Your task to perform on an android device: toggle show notifications on the lock screen Image 0: 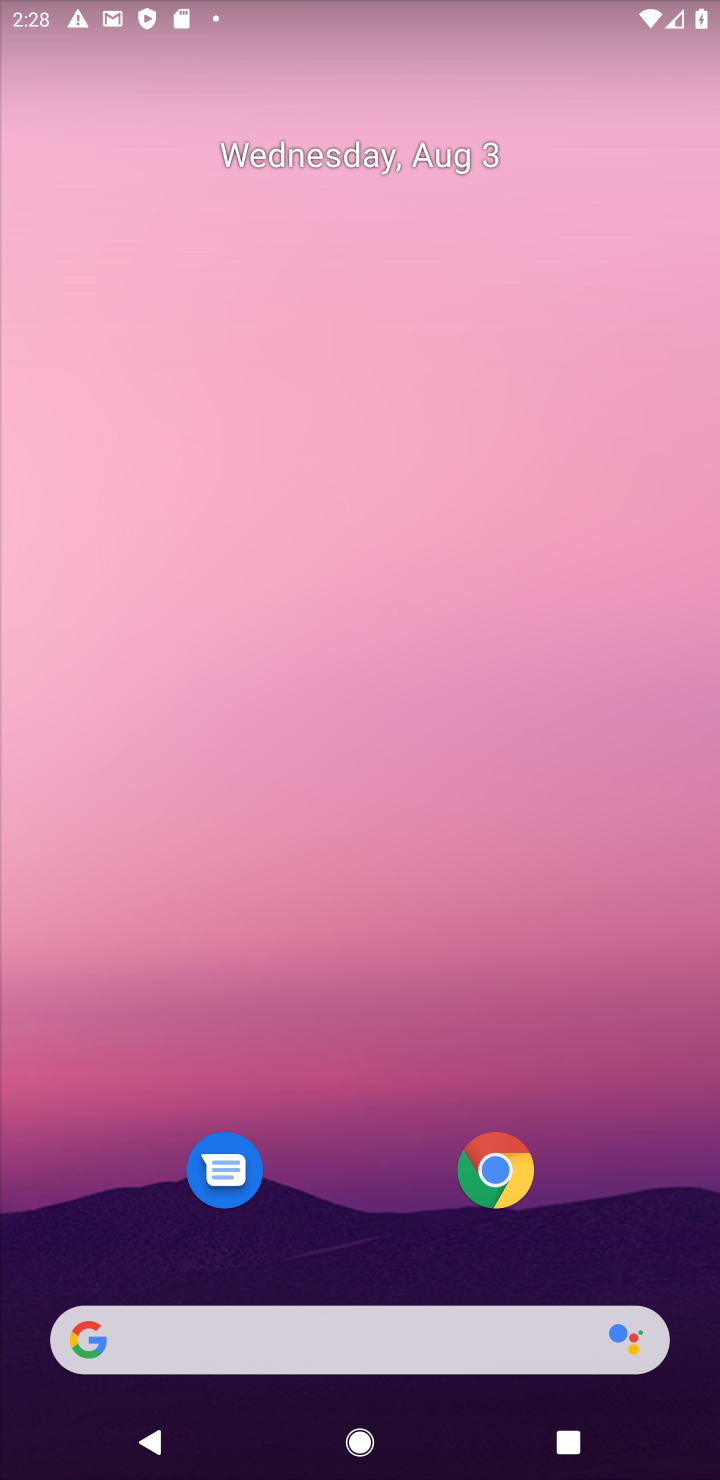
Step 0: drag from (310, 1067) to (336, 153)
Your task to perform on an android device: toggle show notifications on the lock screen Image 1: 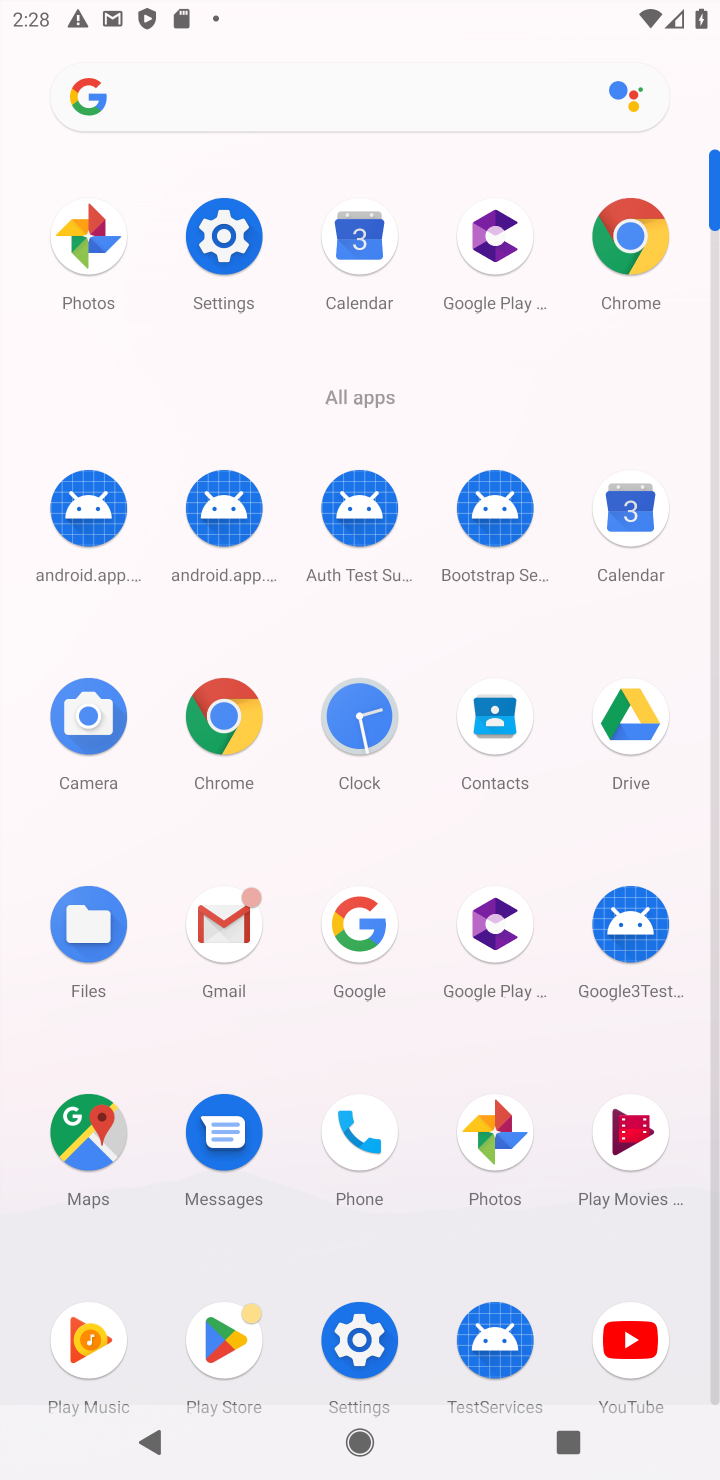
Step 1: click (221, 225)
Your task to perform on an android device: toggle show notifications on the lock screen Image 2: 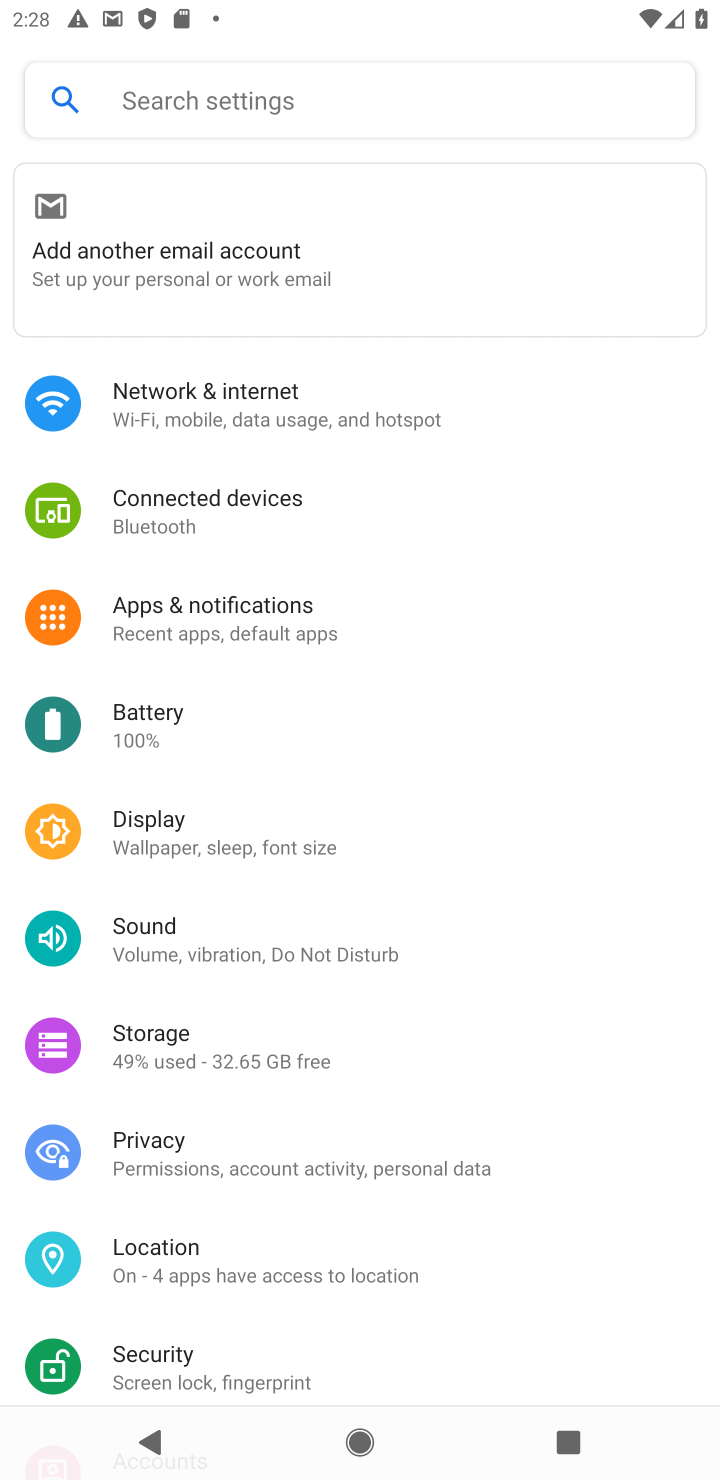
Step 2: click (209, 627)
Your task to perform on an android device: toggle show notifications on the lock screen Image 3: 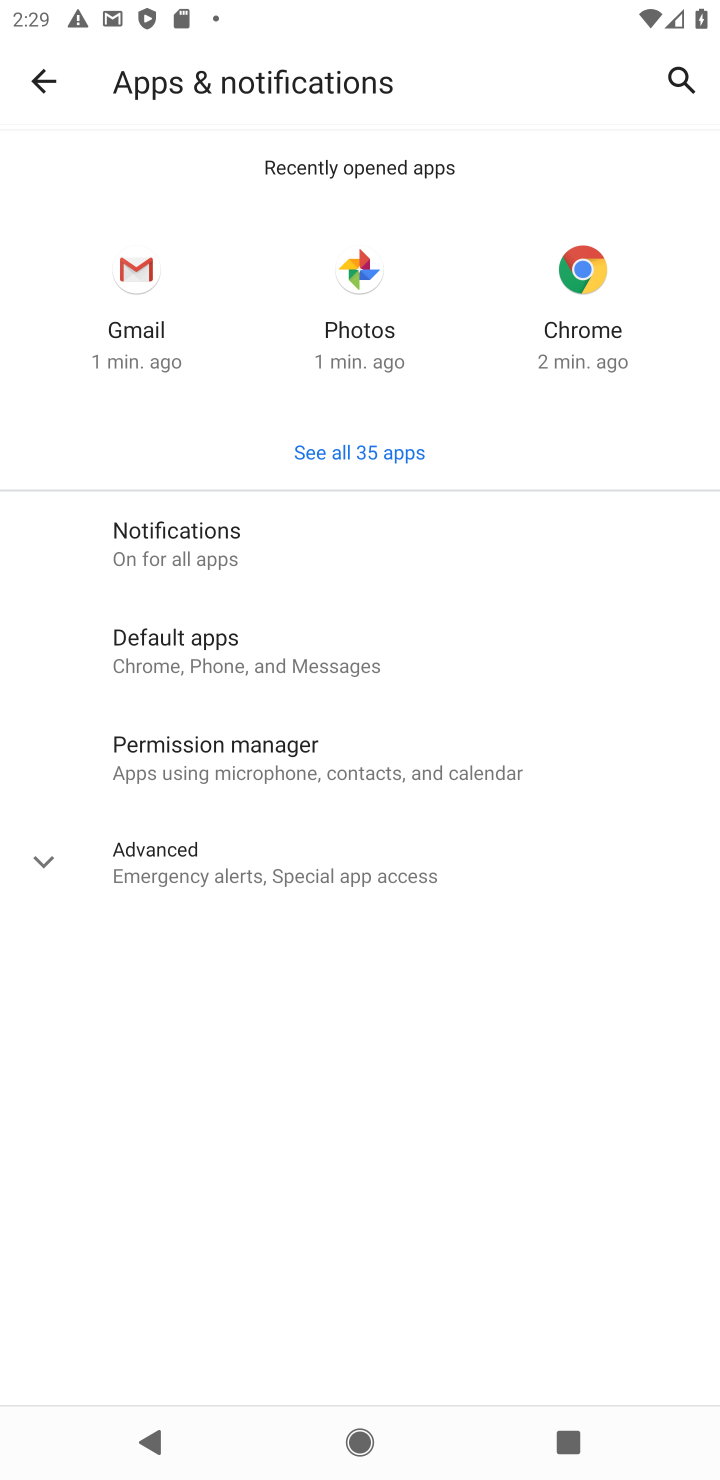
Step 3: click (164, 529)
Your task to perform on an android device: toggle show notifications on the lock screen Image 4: 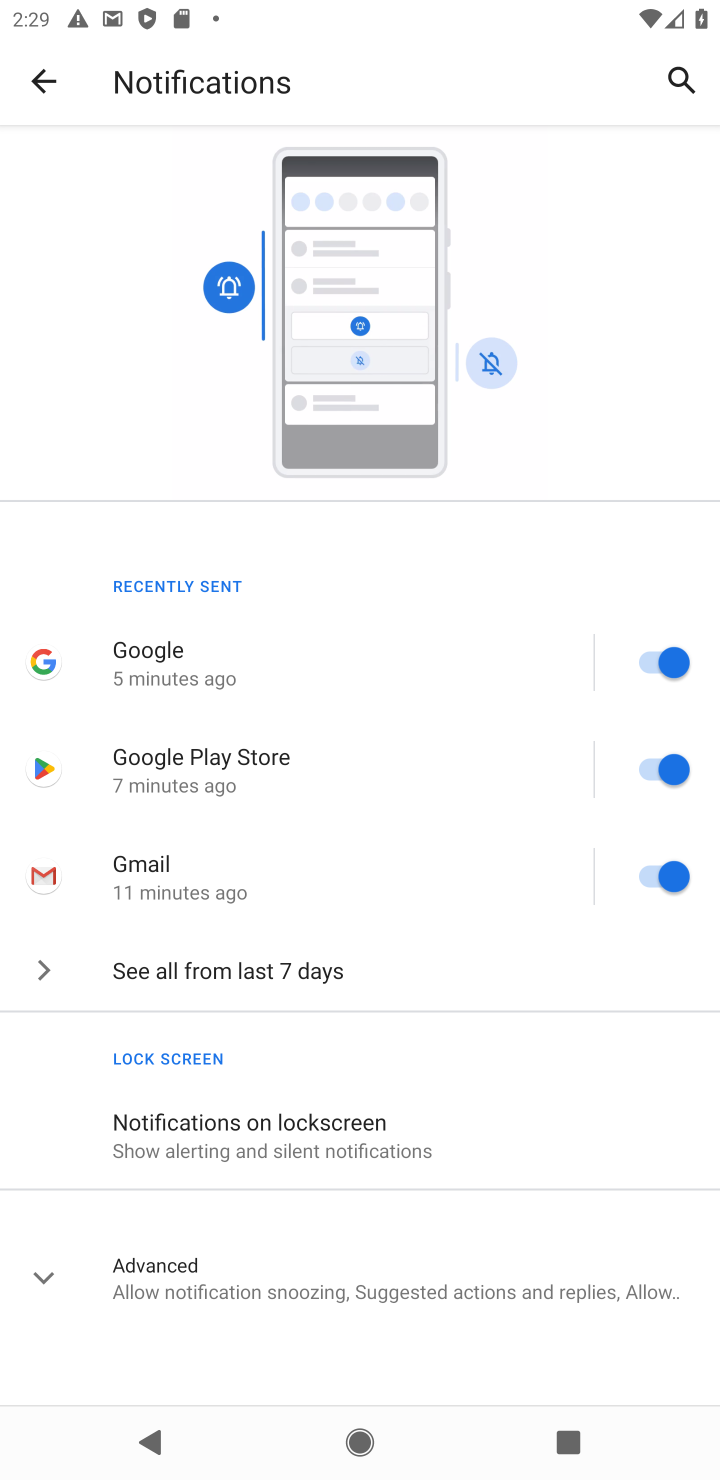
Step 4: click (351, 1154)
Your task to perform on an android device: toggle show notifications on the lock screen Image 5: 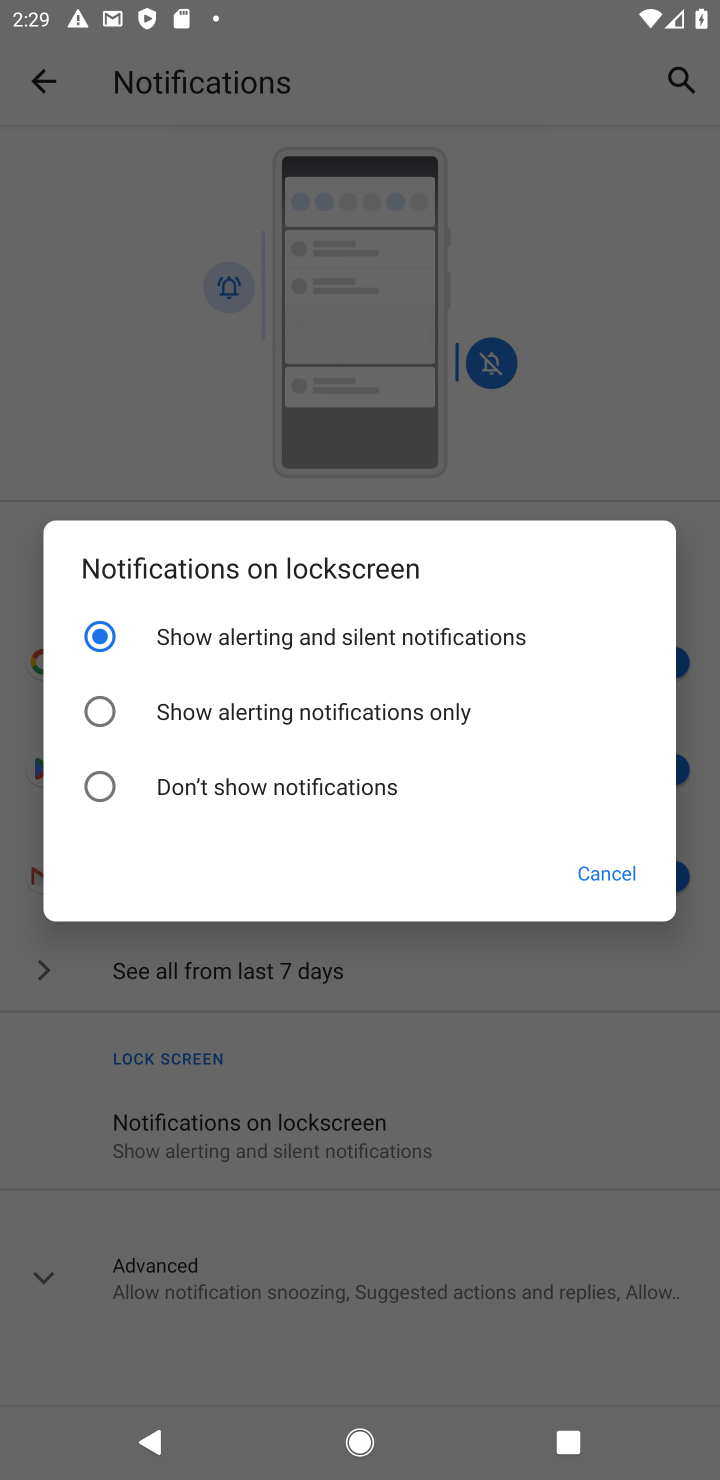
Step 5: click (140, 716)
Your task to perform on an android device: toggle show notifications on the lock screen Image 6: 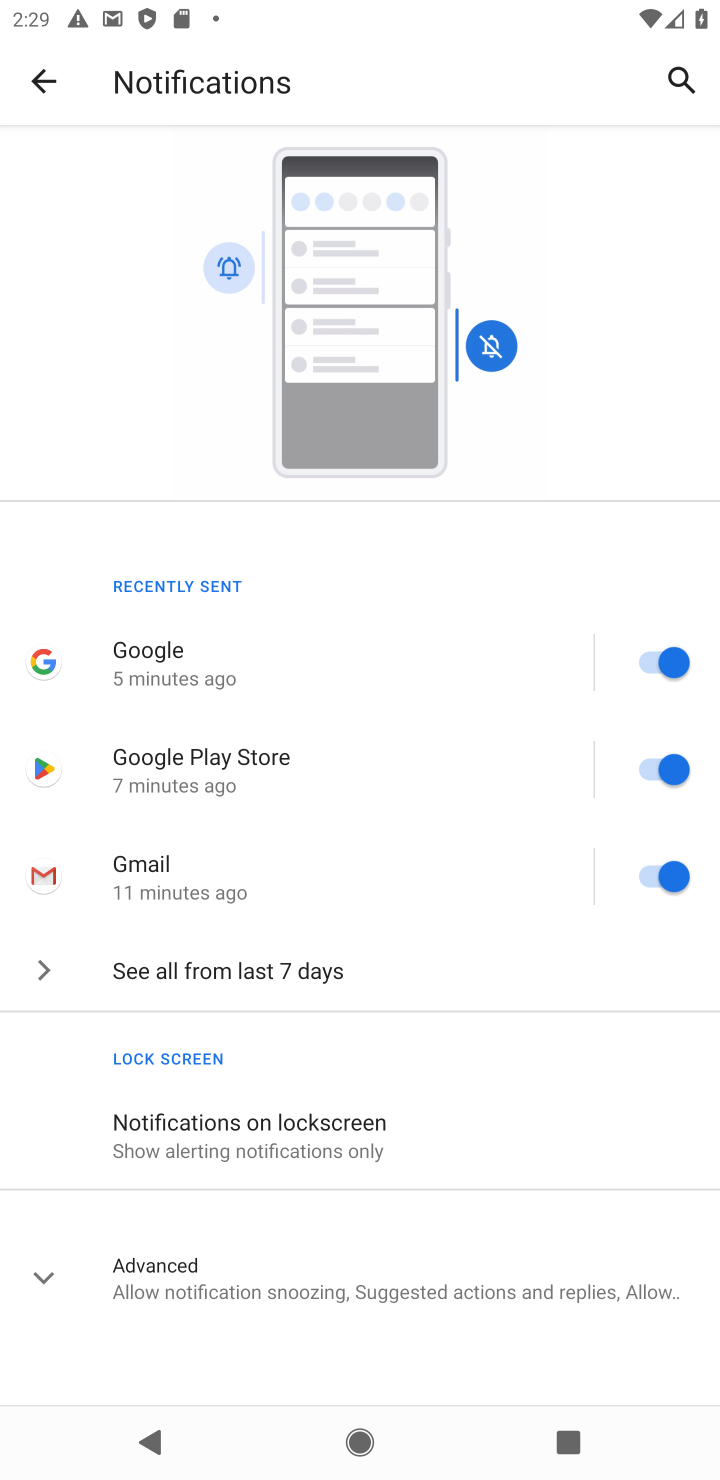
Step 6: task complete